Your task to perform on an android device: turn on notifications settings in the gmail app Image 0: 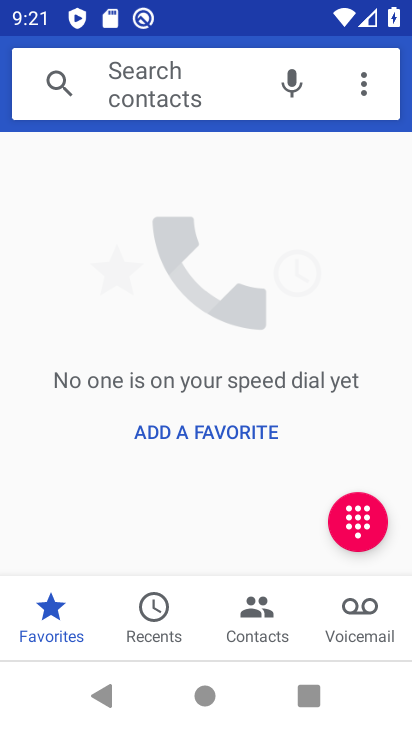
Step 0: press home button
Your task to perform on an android device: turn on notifications settings in the gmail app Image 1: 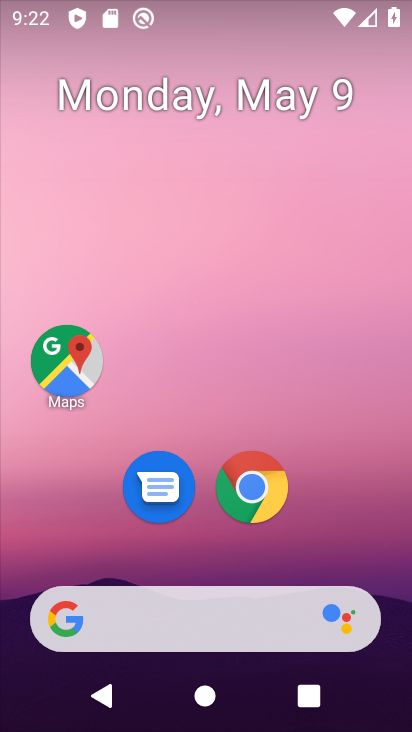
Step 1: drag from (5, 624) to (137, 225)
Your task to perform on an android device: turn on notifications settings in the gmail app Image 2: 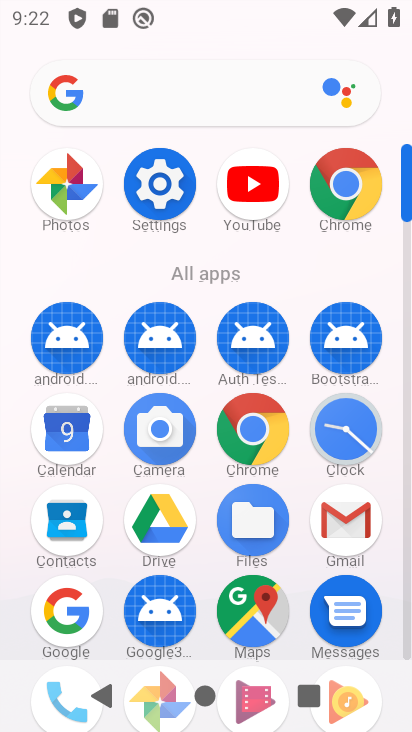
Step 2: click (343, 506)
Your task to perform on an android device: turn on notifications settings in the gmail app Image 3: 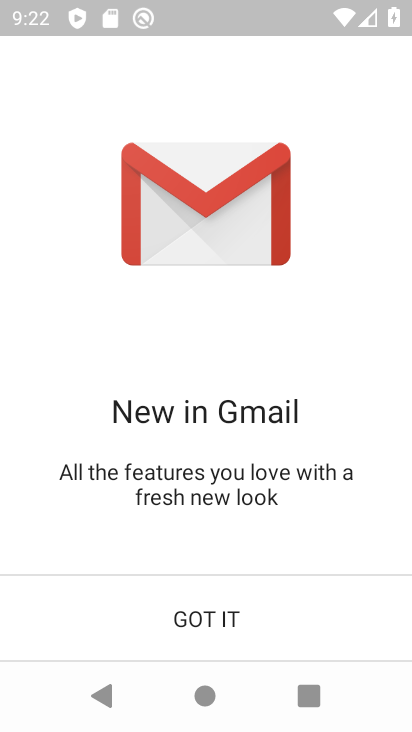
Step 3: click (182, 613)
Your task to perform on an android device: turn on notifications settings in the gmail app Image 4: 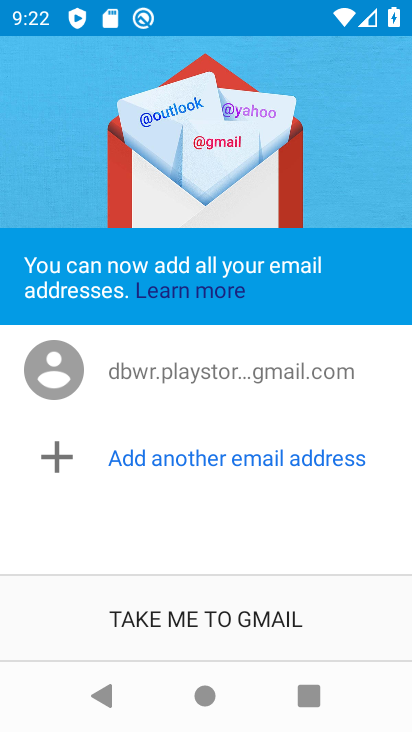
Step 4: click (197, 602)
Your task to perform on an android device: turn on notifications settings in the gmail app Image 5: 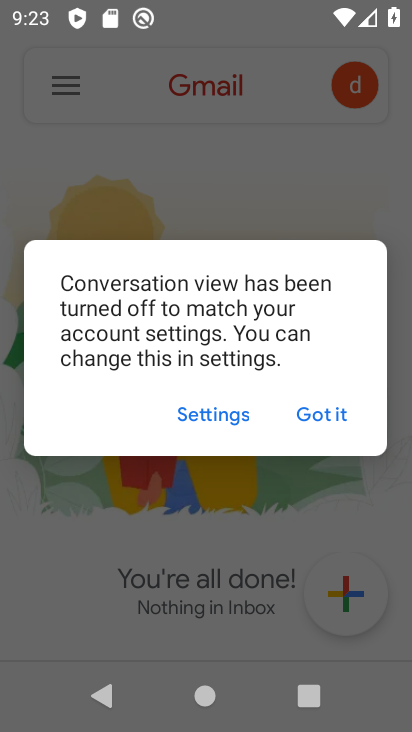
Step 5: click (306, 416)
Your task to perform on an android device: turn on notifications settings in the gmail app Image 6: 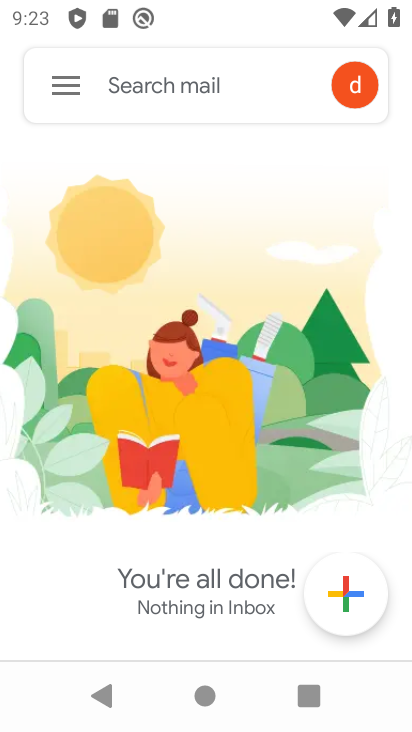
Step 6: click (55, 88)
Your task to perform on an android device: turn on notifications settings in the gmail app Image 7: 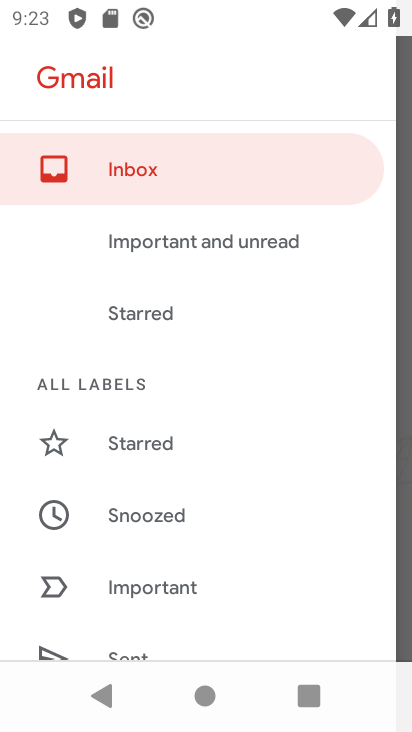
Step 7: drag from (133, 601) to (306, 119)
Your task to perform on an android device: turn on notifications settings in the gmail app Image 8: 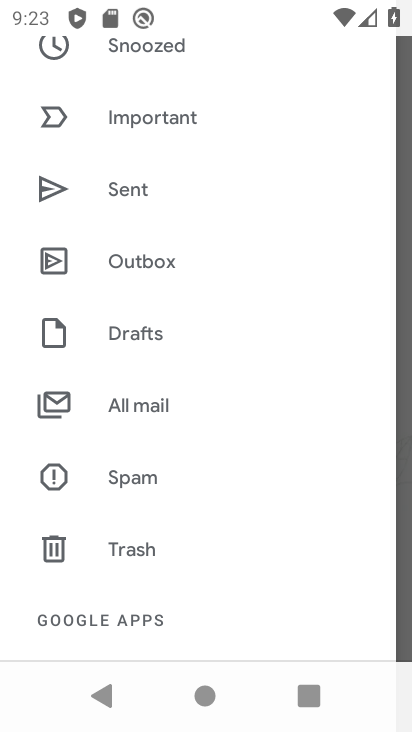
Step 8: drag from (105, 598) to (298, 105)
Your task to perform on an android device: turn on notifications settings in the gmail app Image 9: 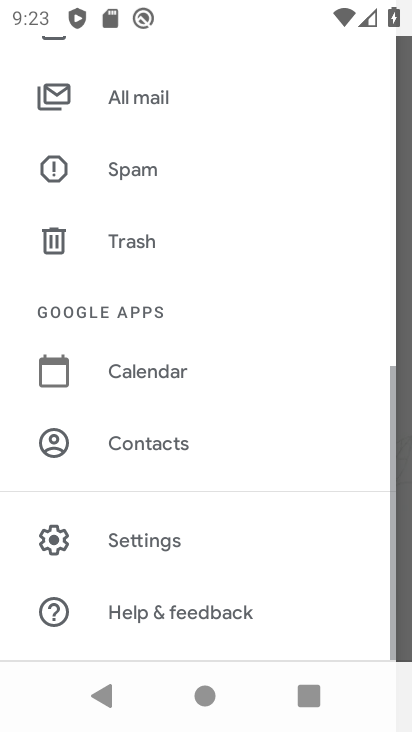
Step 9: click (196, 527)
Your task to perform on an android device: turn on notifications settings in the gmail app Image 10: 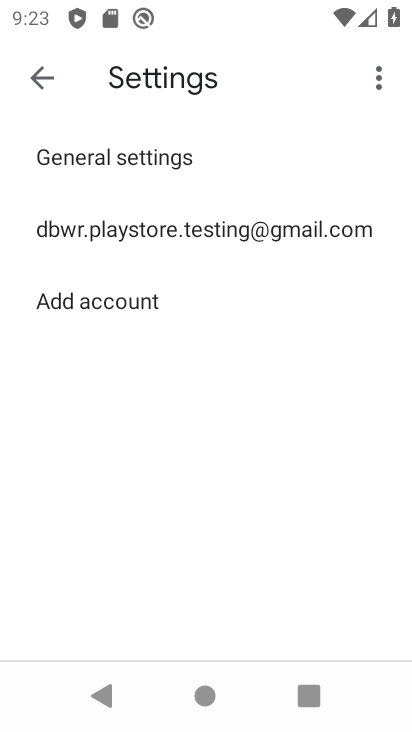
Step 10: click (178, 225)
Your task to perform on an android device: turn on notifications settings in the gmail app Image 11: 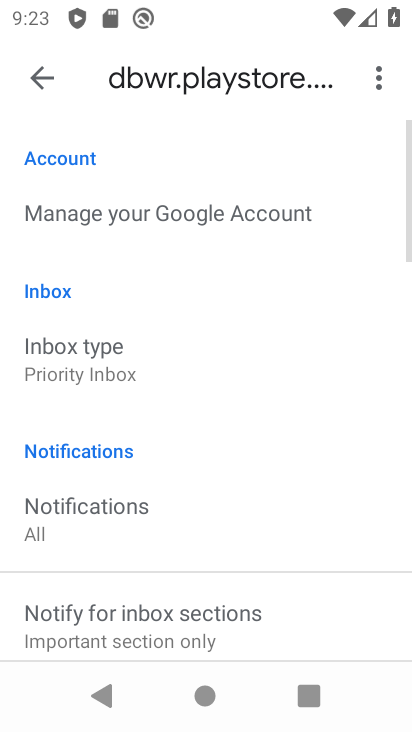
Step 11: drag from (101, 595) to (240, 168)
Your task to perform on an android device: turn on notifications settings in the gmail app Image 12: 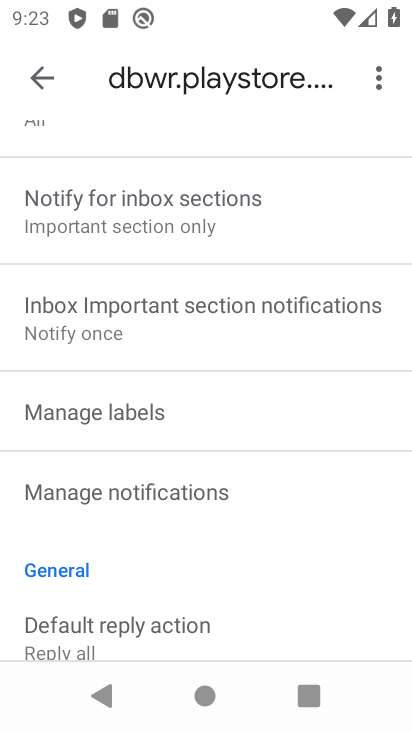
Step 12: drag from (19, 537) to (169, 260)
Your task to perform on an android device: turn on notifications settings in the gmail app Image 13: 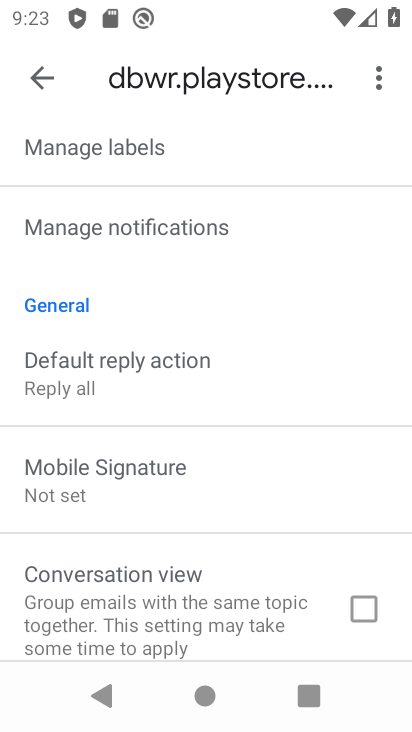
Step 13: click (134, 225)
Your task to perform on an android device: turn on notifications settings in the gmail app Image 14: 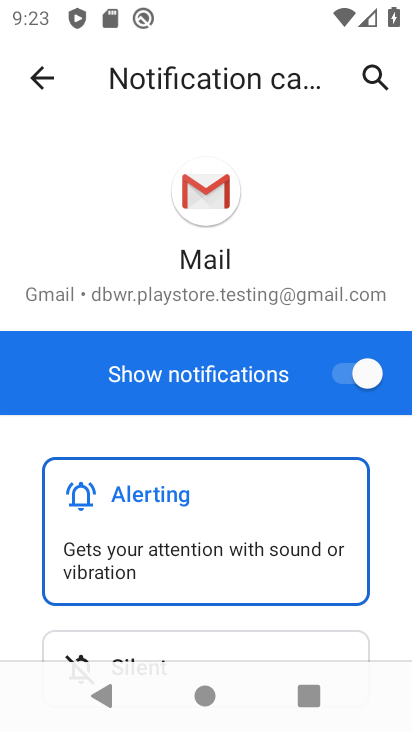
Step 14: click (370, 376)
Your task to perform on an android device: turn on notifications settings in the gmail app Image 15: 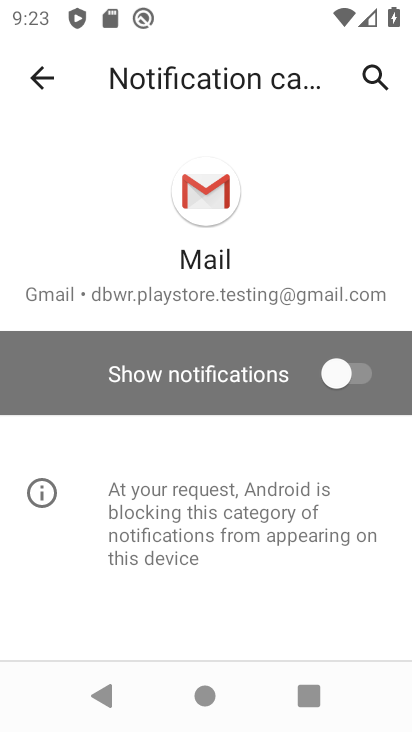
Step 15: task complete